Your task to perform on an android device: Open the calendar and show me this week's events Image 0: 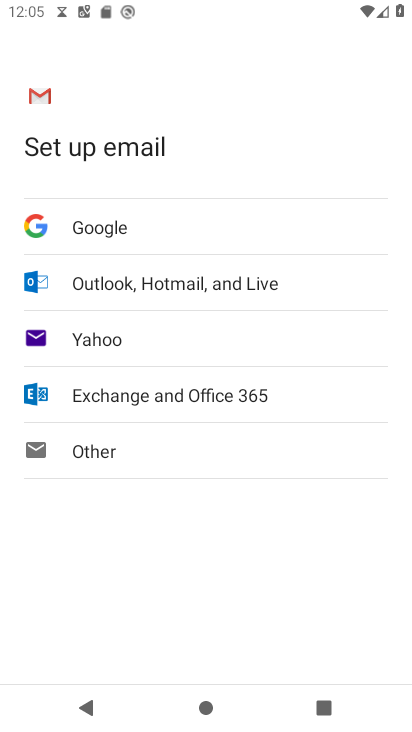
Step 0: press back button
Your task to perform on an android device: Open the calendar and show me this week's events Image 1: 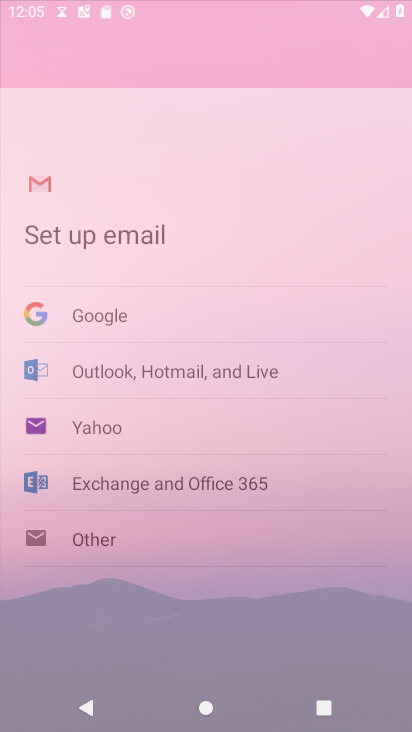
Step 1: press back button
Your task to perform on an android device: Open the calendar and show me this week's events Image 2: 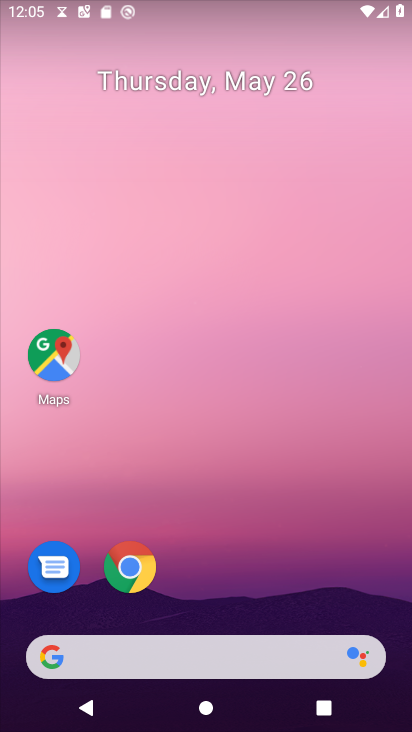
Step 2: drag from (240, 556) to (295, 157)
Your task to perform on an android device: Open the calendar and show me this week's events Image 3: 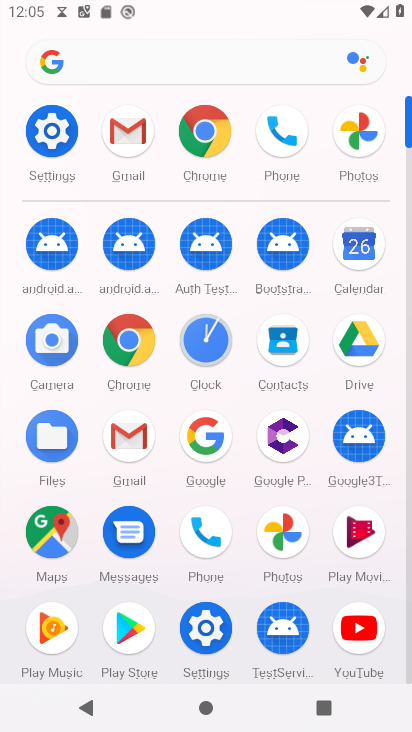
Step 3: click (359, 255)
Your task to perform on an android device: Open the calendar and show me this week's events Image 4: 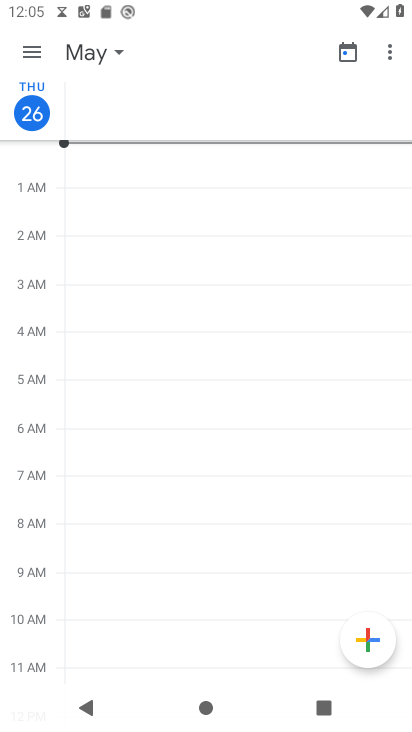
Step 4: click (34, 36)
Your task to perform on an android device: Open the calendar and show me this week's events Image 5: 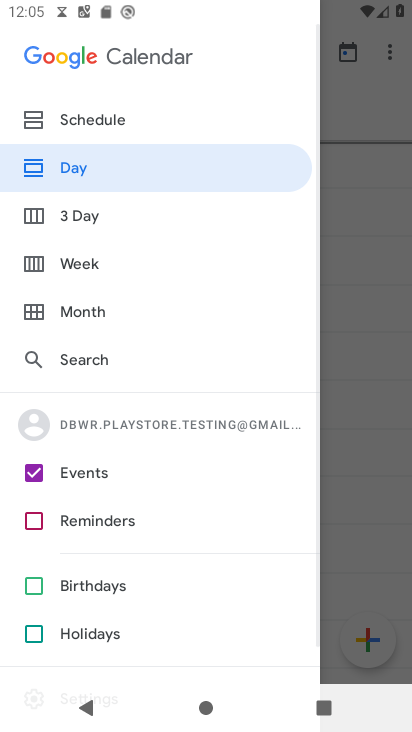
Step 5: click (45, 279)
Your task to perform on an android device: Open the calendar and show me this week's events Image 6: 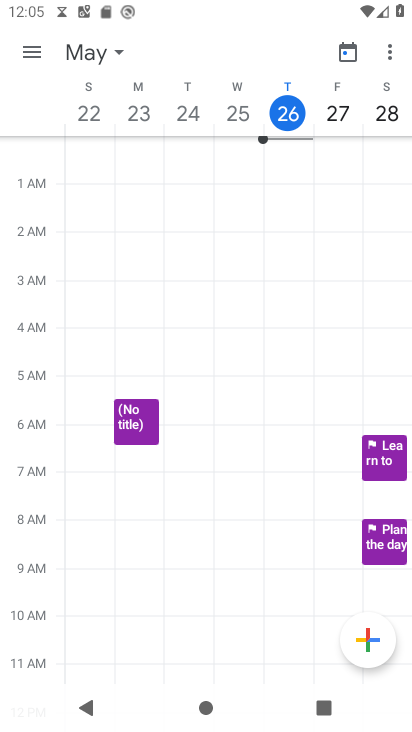
Step 6: task complete